Your task to perform on an android device: Search for Italian restaurants on Maps Image 0: 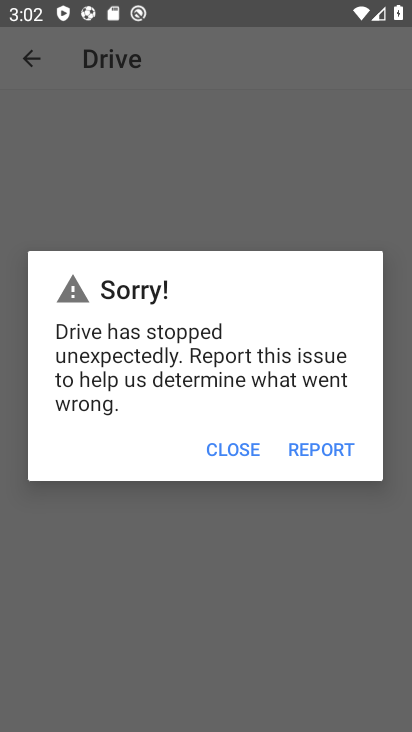
Step 0: press home button
Your task to perform on an android device: Search for Italian restaurants on Maps Image 1: 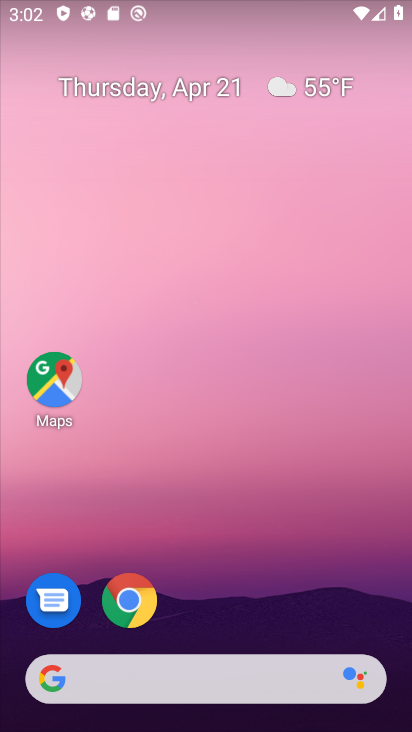
Step 1: drag from (188, 685) to (269, 69)
Your task to perform on an android device: Search for Italian restaurants on Maps Image 2: 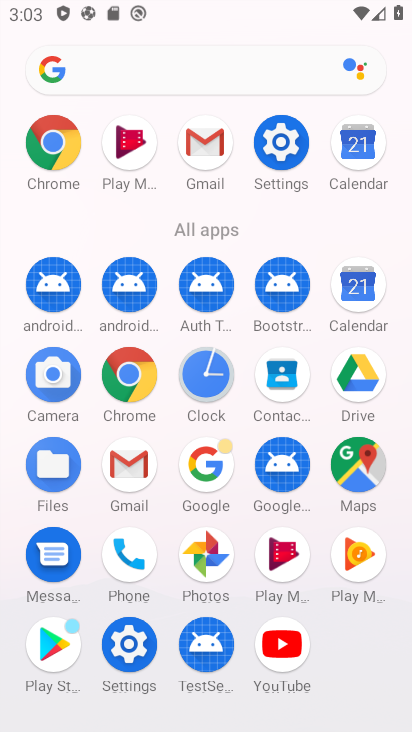
Step 2: click (357, 477)
Your task to perform on an android device: Search for Italian restaurants on Maps Image 3: 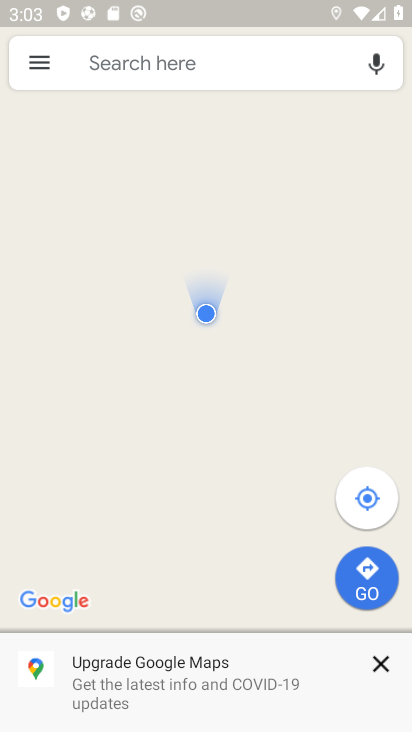
Step 3: click (191, 58)
Your task to perform on an android device: Search for Italian restaurants on Maps Image 4: 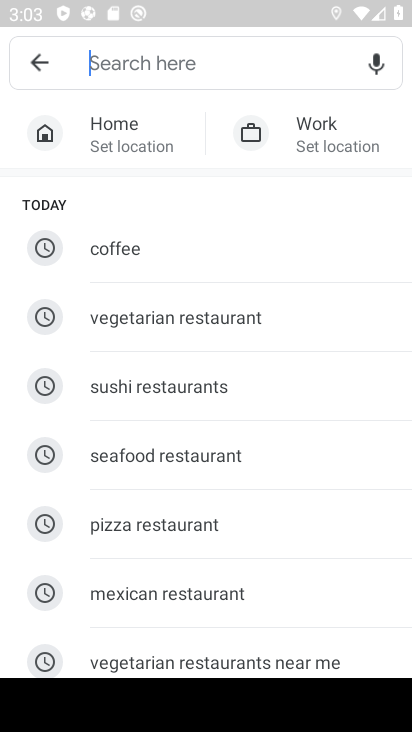
Step 4: drag from (152, 561) to (338, 176)
Your task to perform on an android device: Search for Italian restaurants on Maps Image 5: 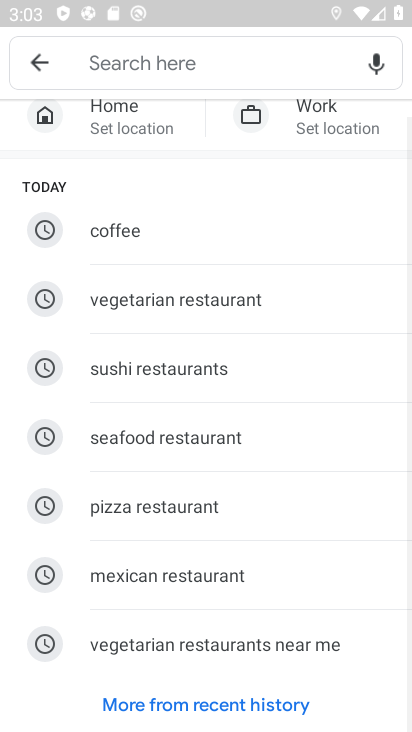
Step 5: click (152, 66)
Your task to perform on an android device: Search for Italian restaurants on Maps Image 6: 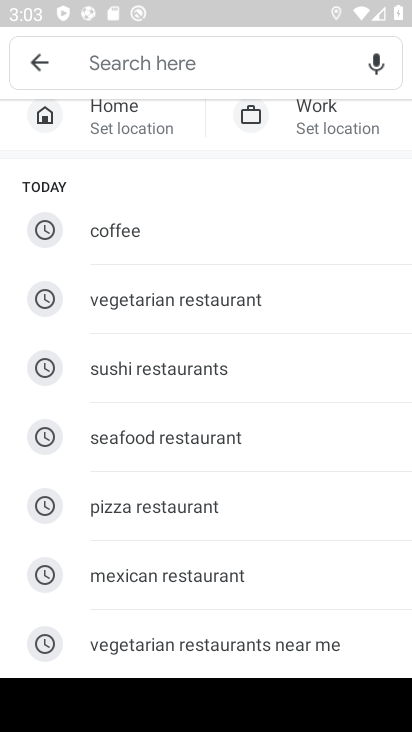
Step 6: type "italian restaurants"
Your task to perform on an android device: Search for Italian restaurants on Maps Image 7: 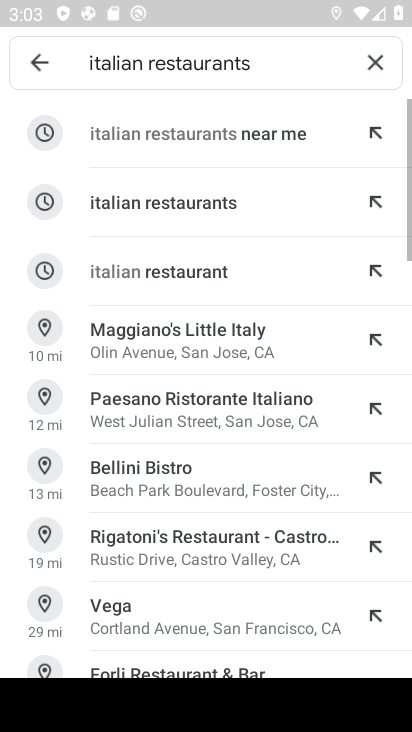
Step 7: click (168, 210)
Your task to perform on an android device: Search for Italian restaurants on Maps Image 8: 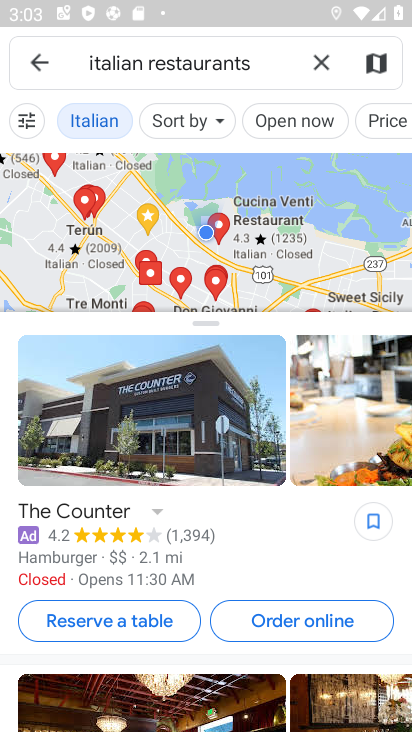
Step 8: task complete